Your task to perform on an android device: Open my contact list Image 0: 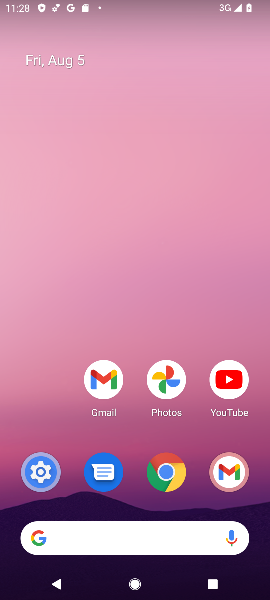
Step 0: drag from (205, 438) to (176, 138)
Your task to perform on an android device: Open my contact list Image 1: 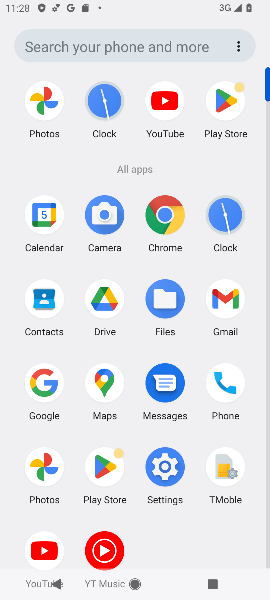
Step 1: click (44, 296)
Your task to perform on an android device: Open my contact list Image 2: 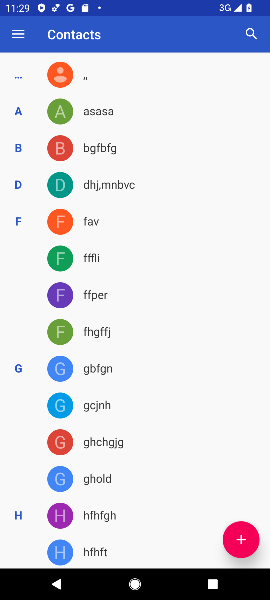
Step 2: task complete